Your task to perform on an android device: turn off data saver in the chrome app Image 0: 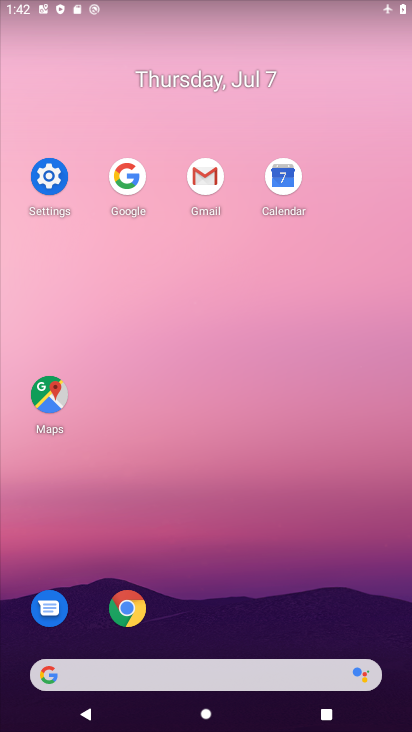
Step 0: click (126, 613)
Your task to perform on an android device: turn off data saver in the chrome app Image 1: 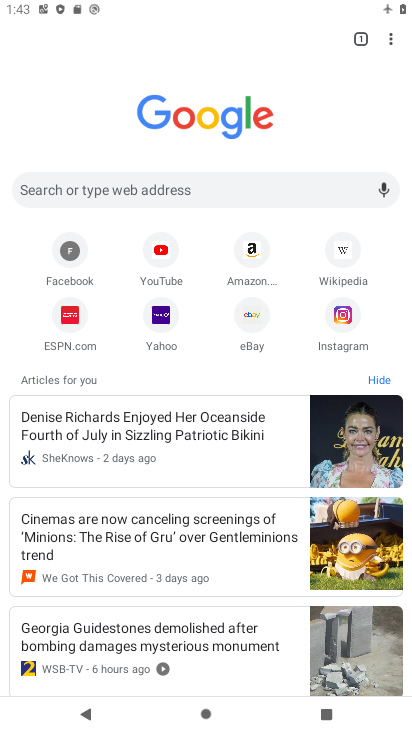
Step 1: click (395, 33)
Your task to perform on an android device: turn off data saver in the chrome app Image 2: 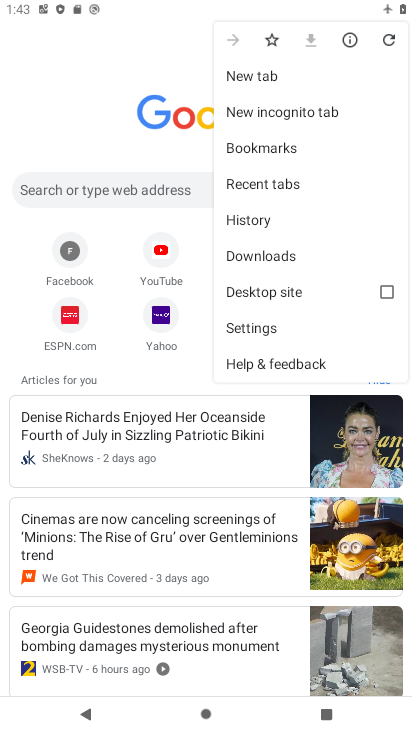
Step 2: click (253, 321)
Your task to perform on an android device: turn off data saver in the chrome app Image 3: 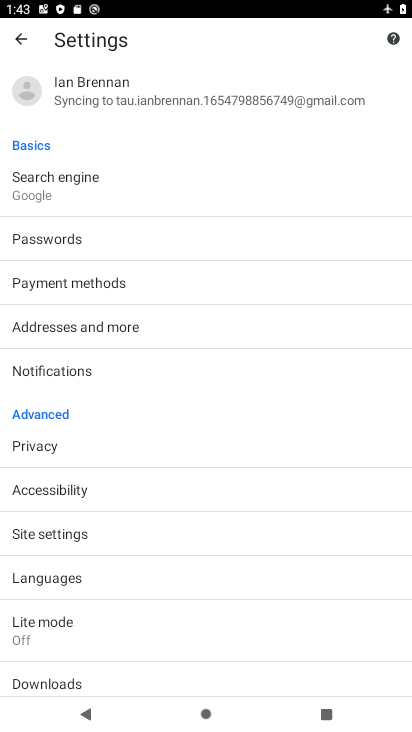
Step 3: click (160, 618)
Your task to perform on an android device: turn off data saver in the chrome app Image 4: 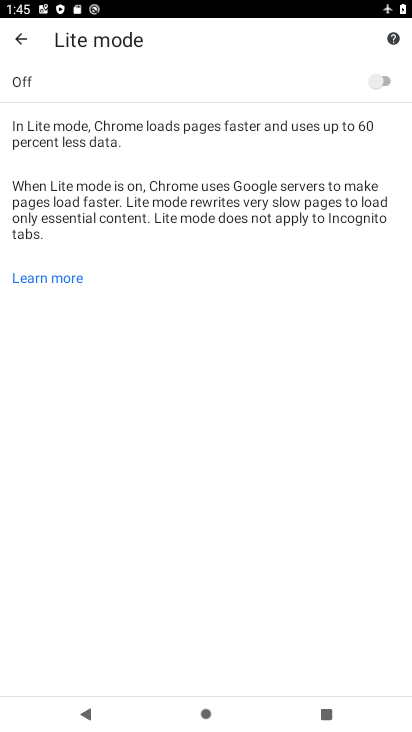
Step 4: task complete